Your task to perform on an android device: Open Google Chrome and click the shortcut for Amazon.com Image 0: 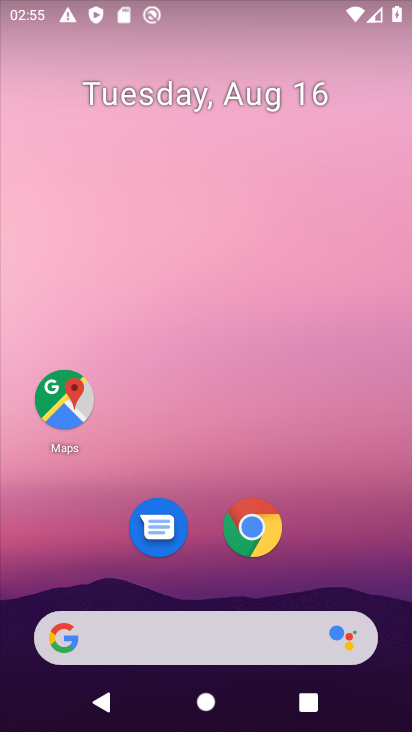
Step 0: click (249, 522)
Your task to perform on an android device: Open Google Chrome and click the shortcut for Amazon.com Image 1: 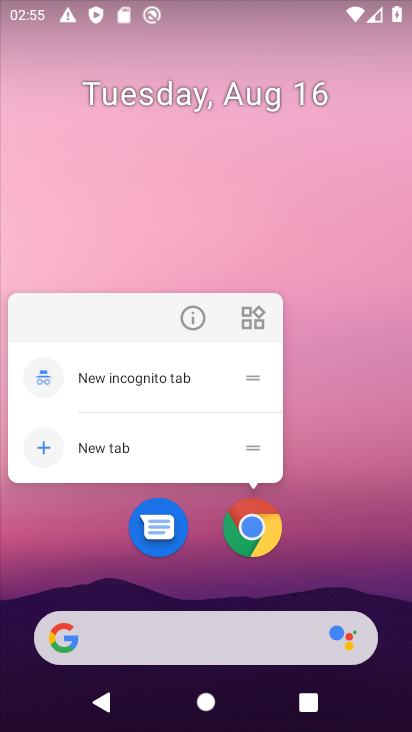
Step 1: click (249, 522)
Your task to perform on an android device: Open Google Chrome and click the shortcut for Amazon.com Image 2: 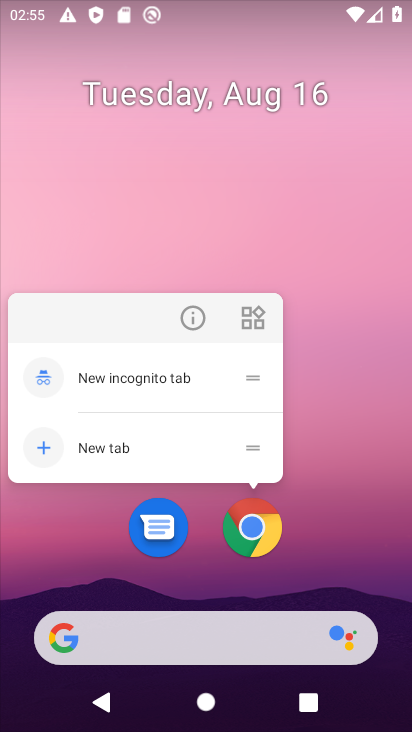
Step 2: drag from (314, 553) to (377, 132)
Your task to perform on an android device: Open Google Chrome and click the shortcut for Amazon.com Image 3: 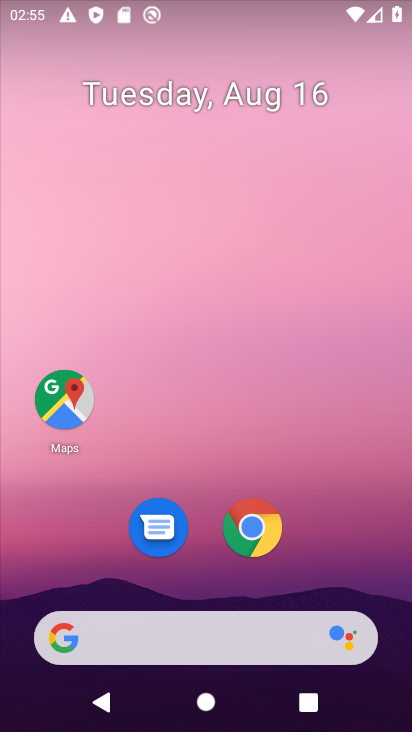
Step 3: click (255, 531)
Your task to perform on an android device: Open Google Chrome and click the shortcut for Amazon.com Image 4: 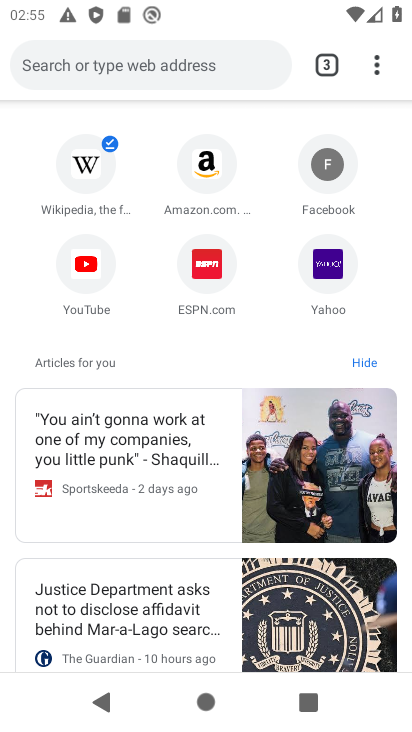
Step 4: click (206, 158)
Your task to perform on an android device: Open Google Chrome and click the shortcut for Amazon.com Image 5: 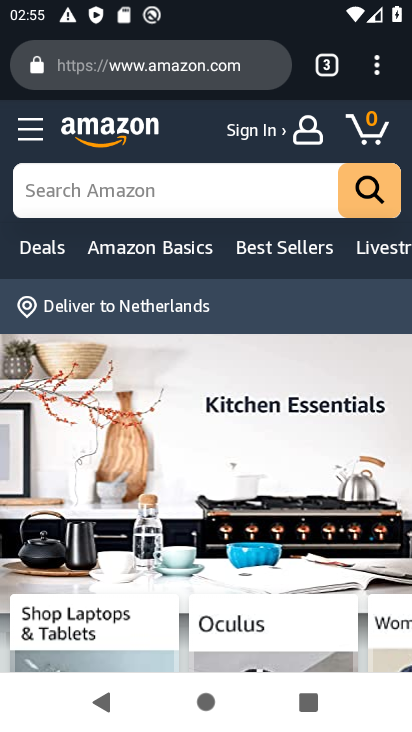
Step 5: task complete